Your task to perform on an android device: Add "bose soundlink" to the cart on costco Image 0: 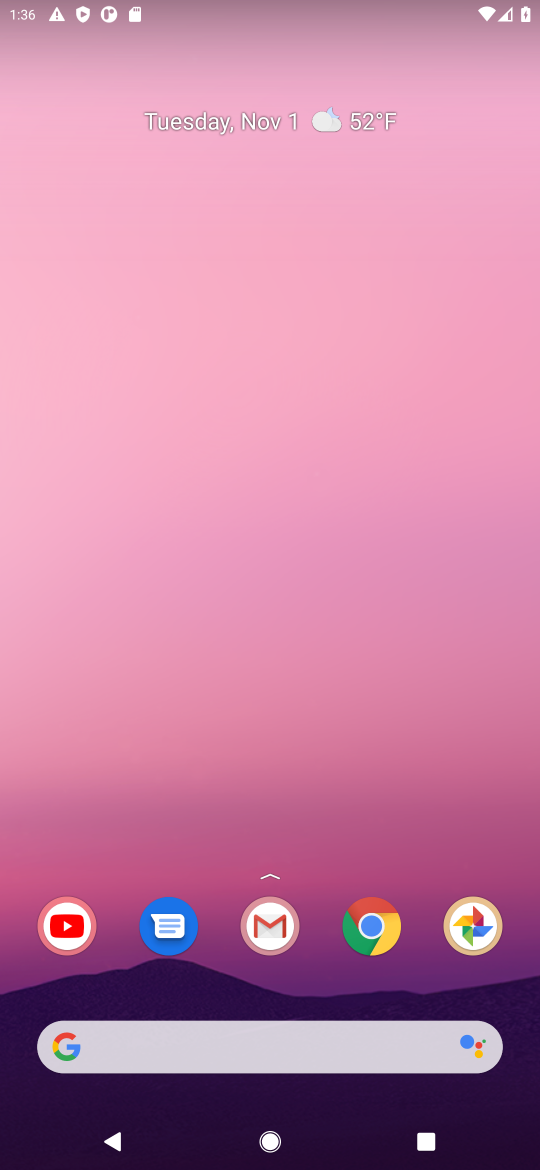
Step 0: click (376, 932)
Your task to perform on an android device: Add "bose soundlink" to the cart on costco Image 1: 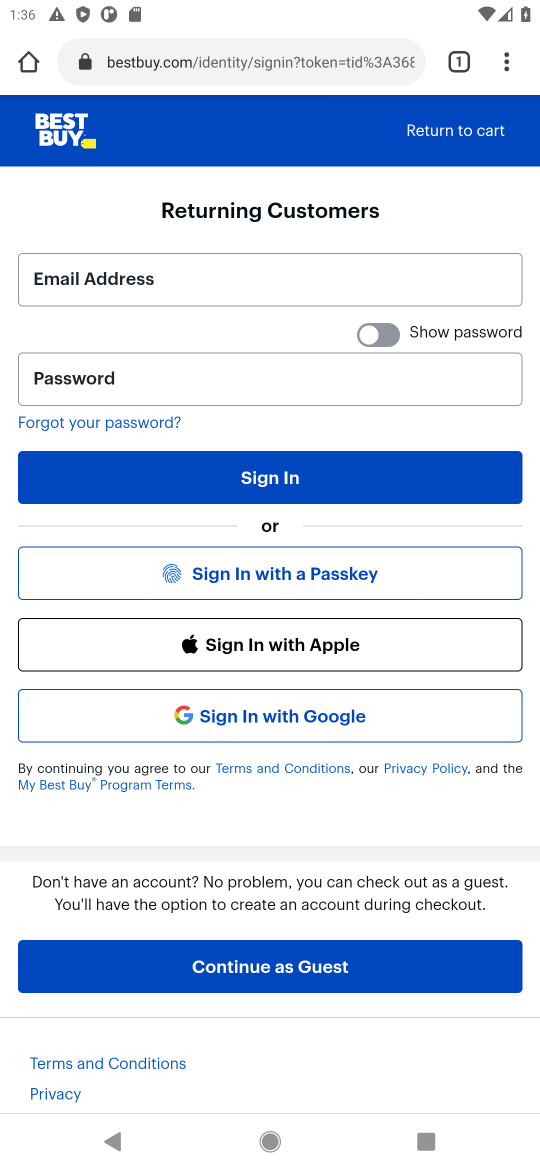
Step 1: click (169, 57)
Your task to perform on an android device: Add "bose soundlink" to the cart on costco Image 2: 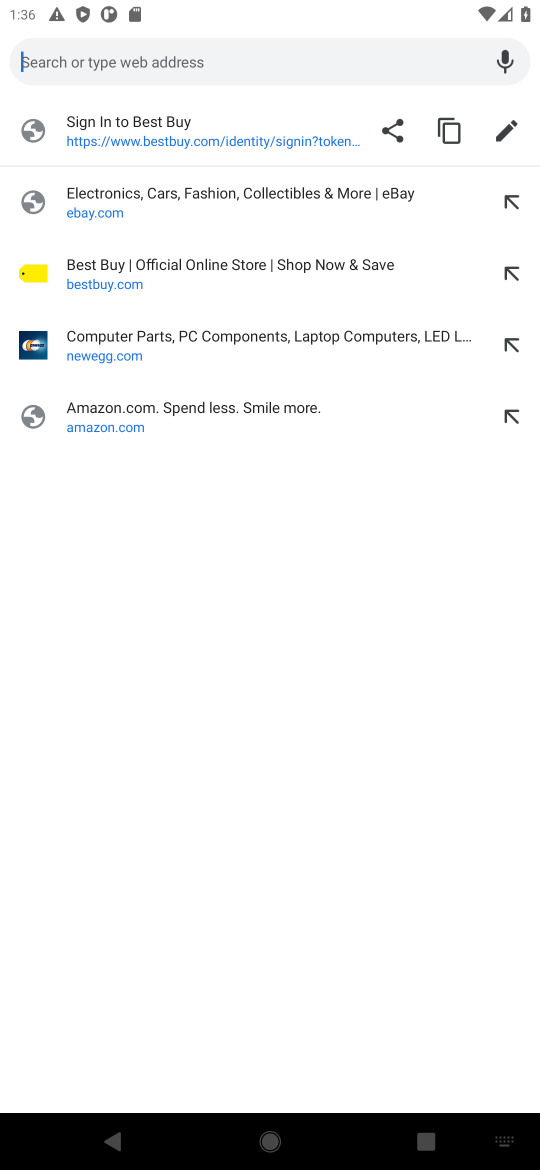
Step 2: type "costco"
Your task to perform on an android device: Add "bose soundlink" to the cart on costco Image 3: 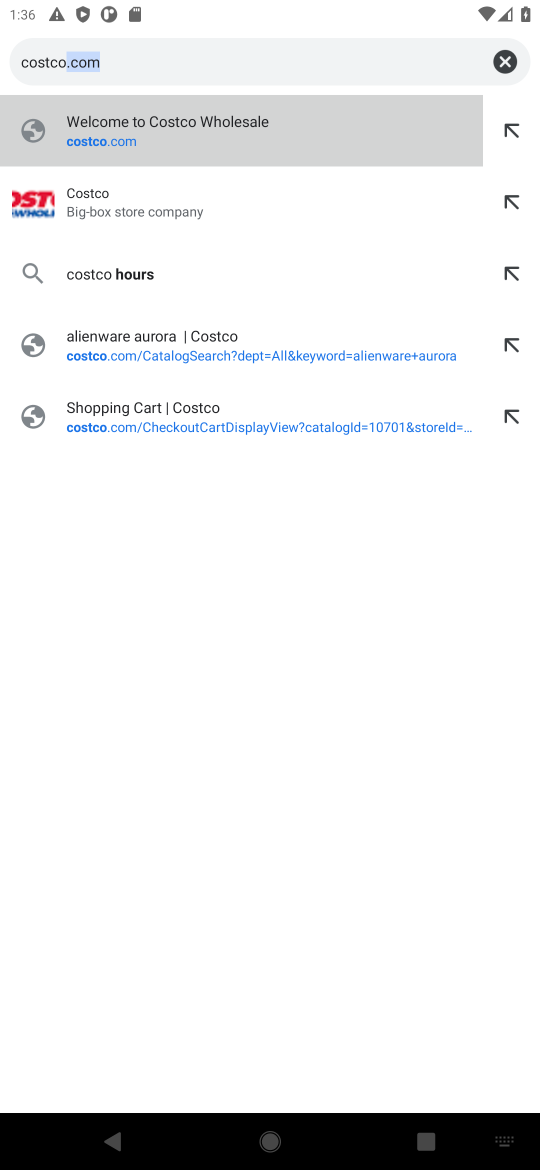
Step 3: press enter
Your task to perform on an android device: Add "bose soundlink" to the cart on costco Image 4: 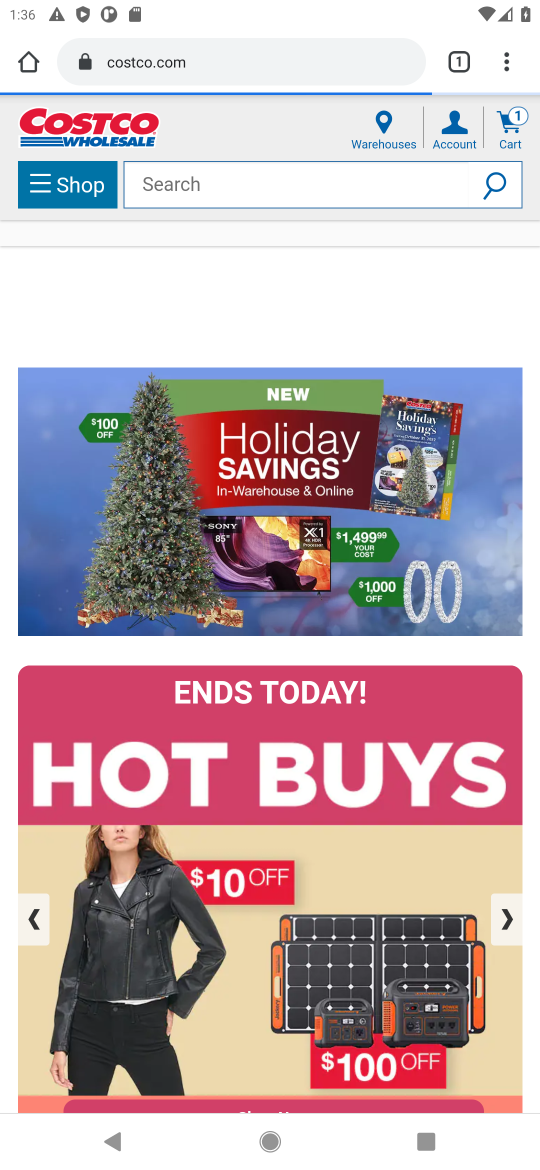
Step 4: click (293, 175)
Your task to perform on an android device: Add "bose soundlink" to the cart on costco Image 5: 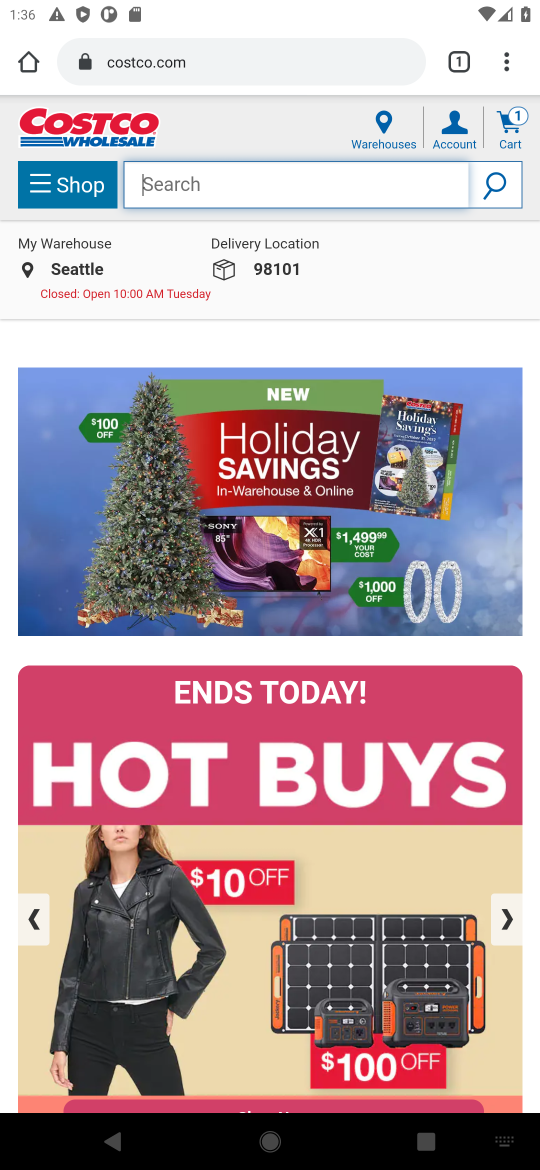
Step 5: type "bose soundlink"
Your task to perform on an android device: Add "bose soundlink" to the cart on costco Image 6: 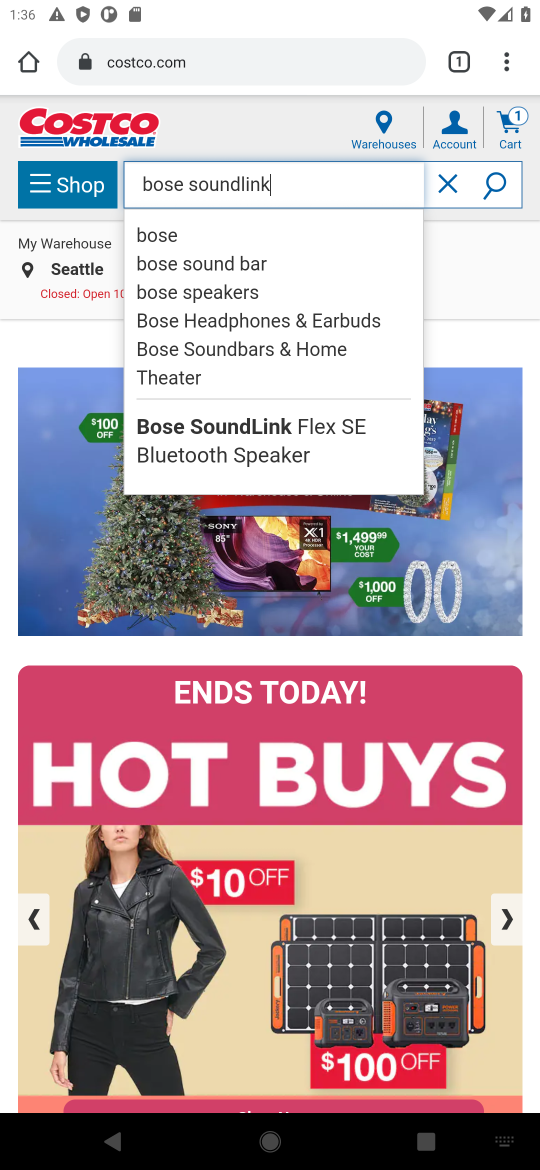
Step 6: press enter
Your task to perform on an android device: Add "bose soundlink" to the cart on costco Image 7: 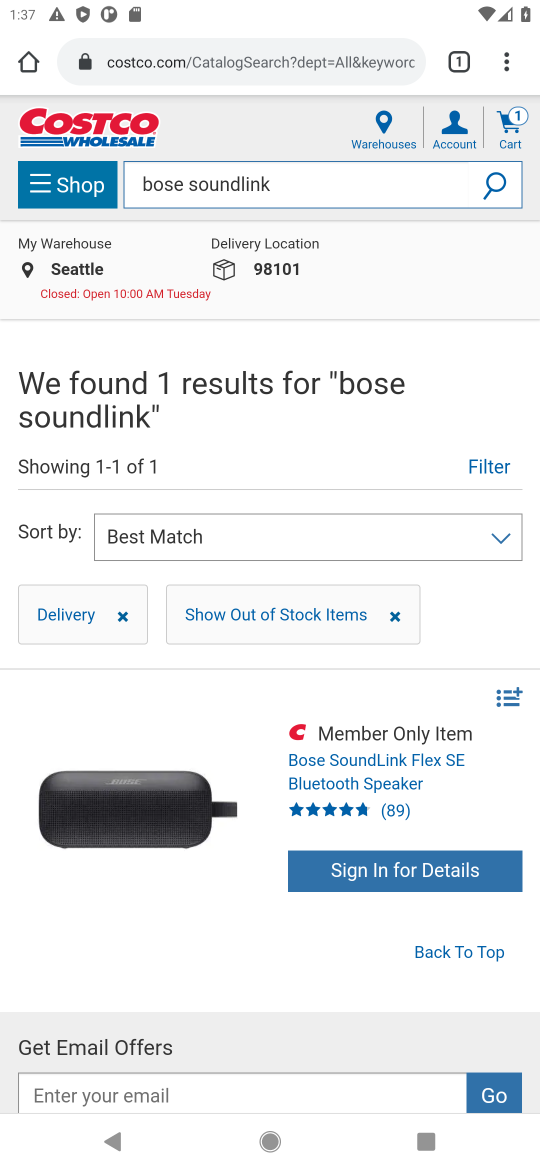
Step 7: click (313, 766)
Your task to perform on an android device: Add "bose soundlink" to the cart on costco Image 8: 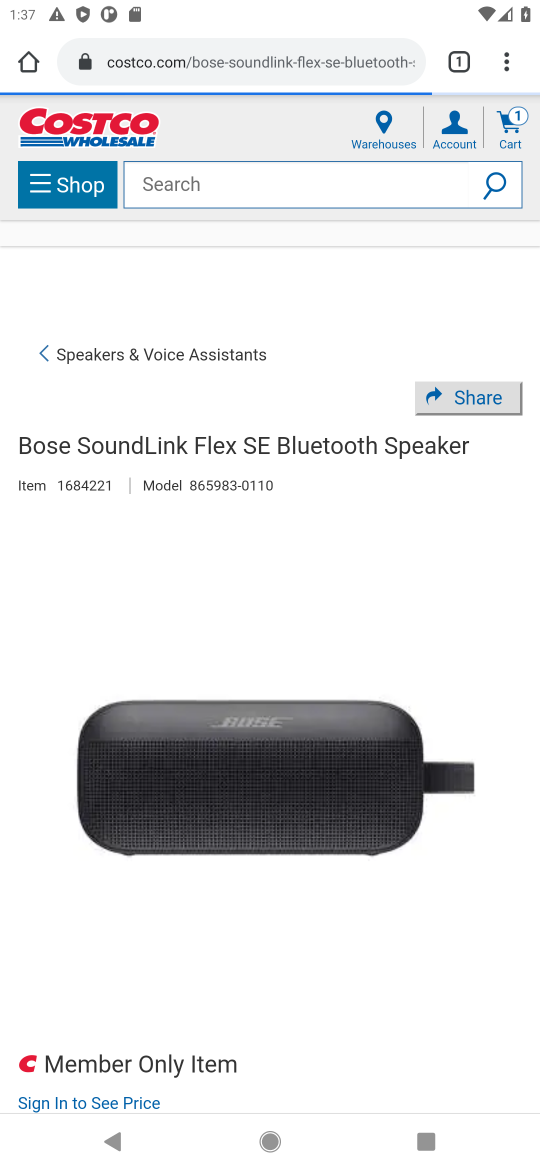
Step 8: task complete